Your task to perform on an android device: Open the stopwatch Image 0: 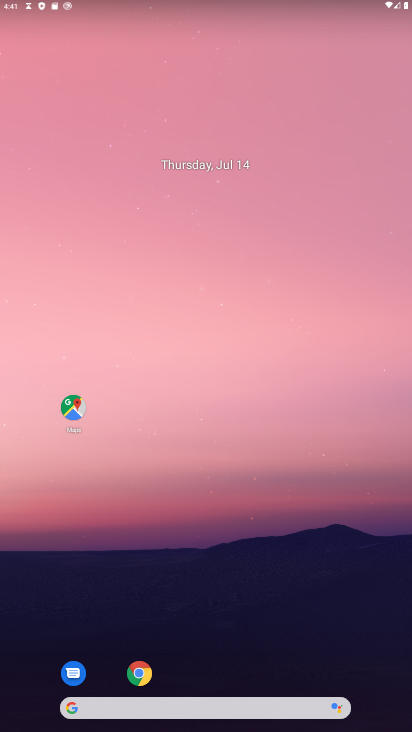
Step 0: press back button
Your task to perform on an android device: Open the stopwatch Image 1: 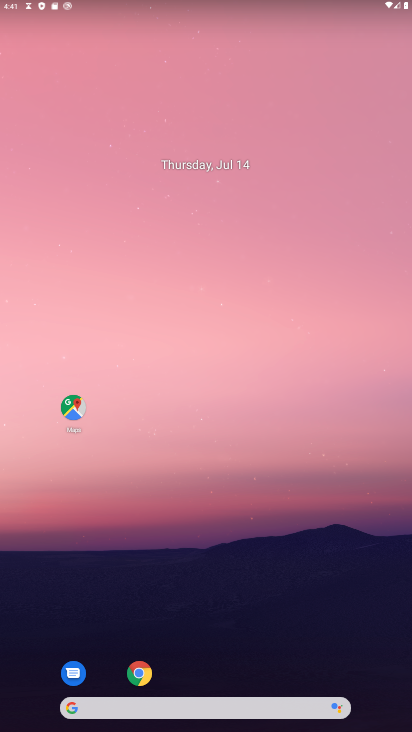
Step 1: drag from (246, 704) to (167, 184)
Your task to perform on an android device: Open the stopwatch Image 2: 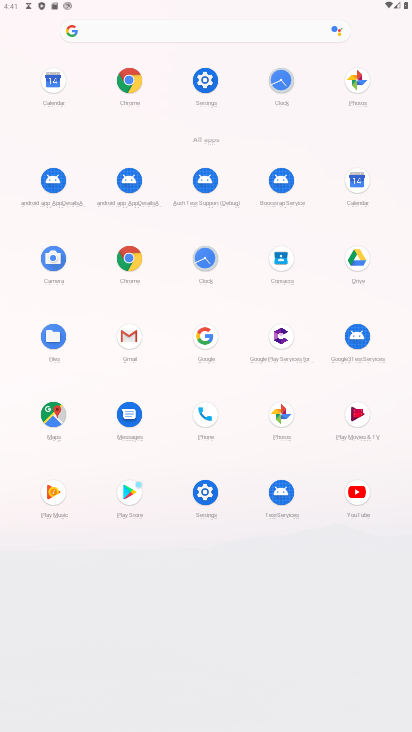
Step 2: click (204, 254)
Your task to perform on an android device: Open the stopwatch Image 3: 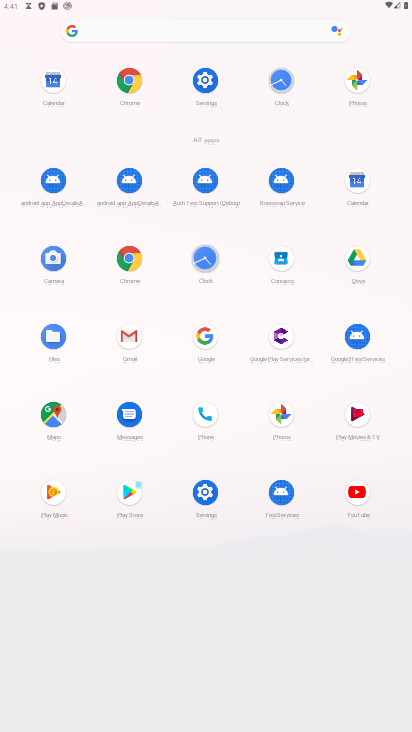
Step 3: click (205, 254)
Your task to perform on an android device: Open the stopwatch Image 4: 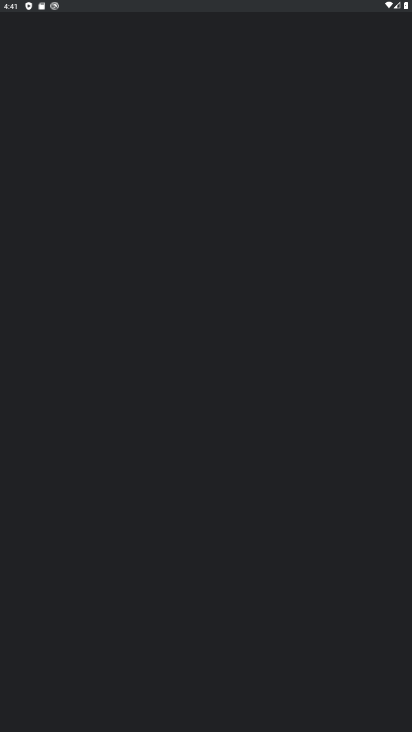
Step 4: click (207, 255)
Your task to perform on an android device: Open the stopwatch Image 5: 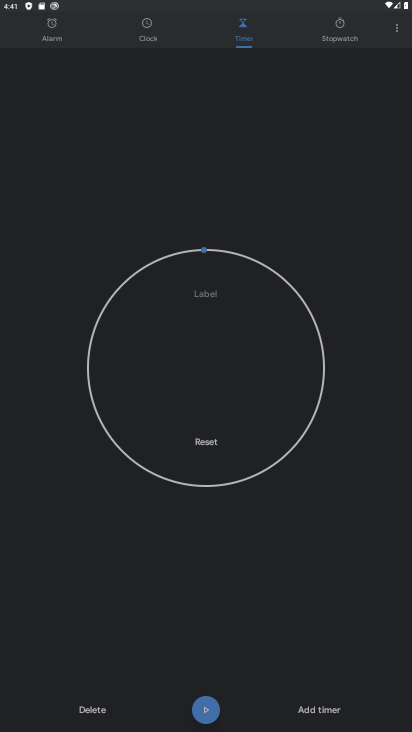
Step 5: click (207, 255)
Your task to perform on an android device: Open the stopwatch Image 6: 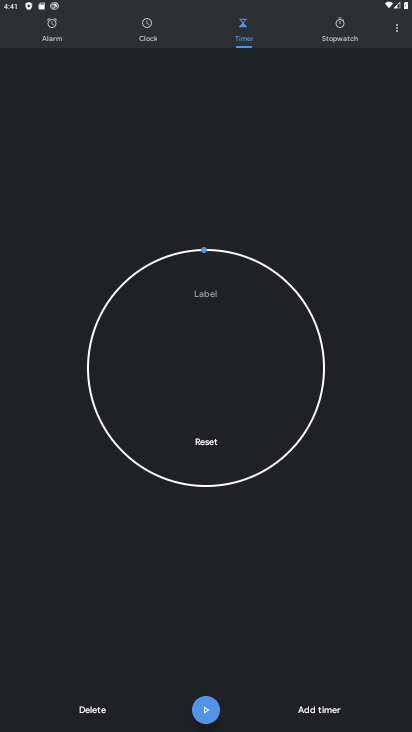
Step 6: click (338, 30)
Your task to perform on an android device: Open the stopwatch Image 7: 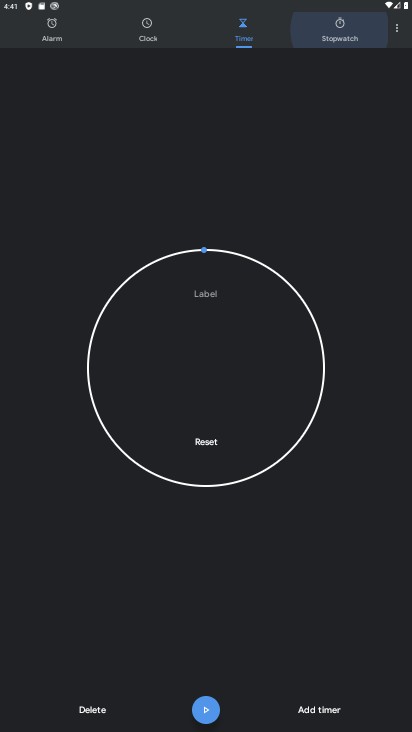
Step 7: click (338, 29)
Your task to perform on an android device: Open the stopwatch Image 8: 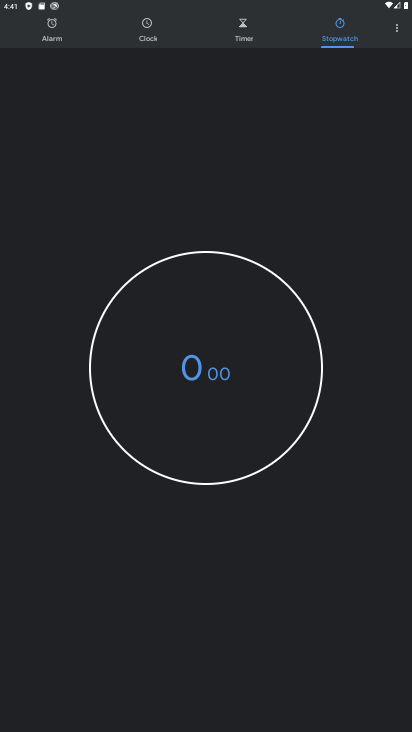
Step 8: click (338, 29)
Your task to perform on an android device: Open the stopwatch Image 9: 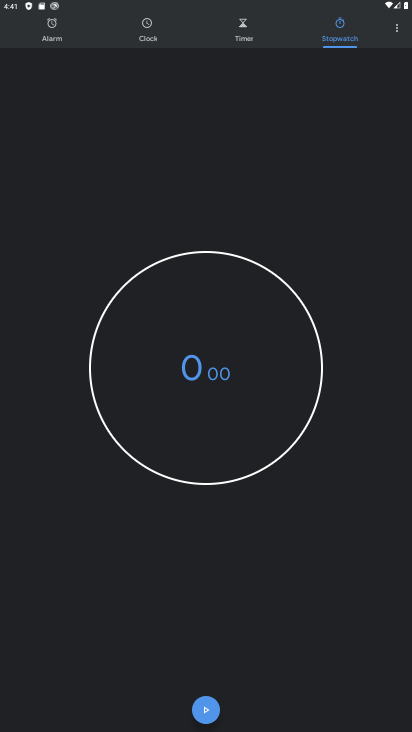
Step 9: click (216, 706)
Your task to perform on an android device: Open the stopwatch Image 10: 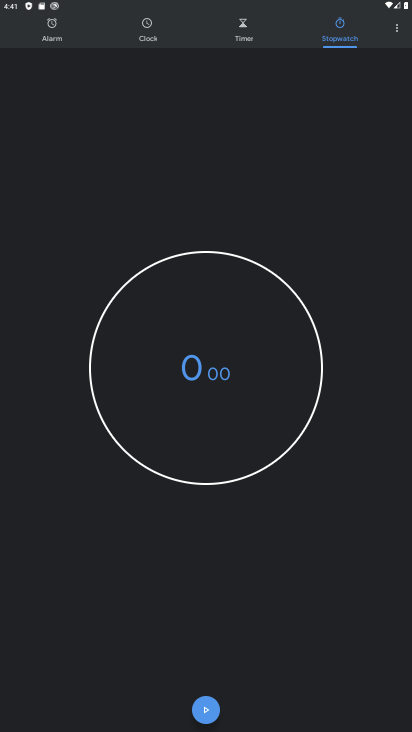
Step 10: click (216, 706)
Your task to perform on an android device: Open the stopwatch Image 11: 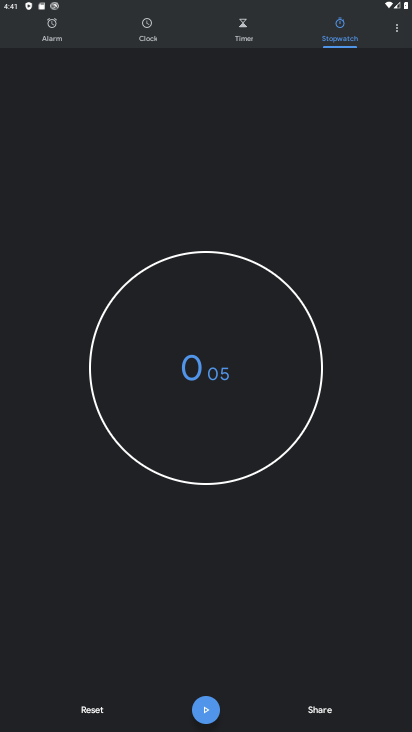
Step 11: click (208, 709)
Your task to perform on an android device: Open the stopwatch Image 12: 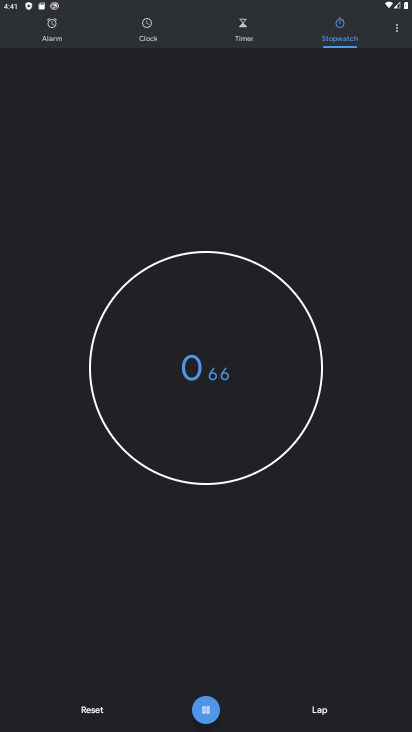
Step 12: click (208, 709)
Your task to perform on an android device: Open the stopwatch Image 13: 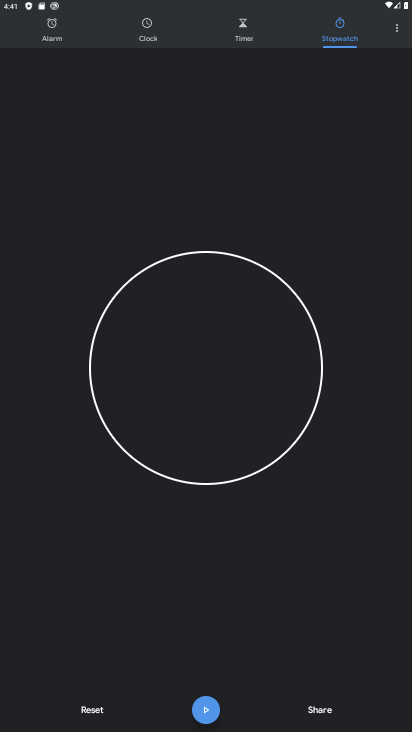
Step 13: click (212, 714)
Your task to perform on an android device: Open the stopwatch Image 14: 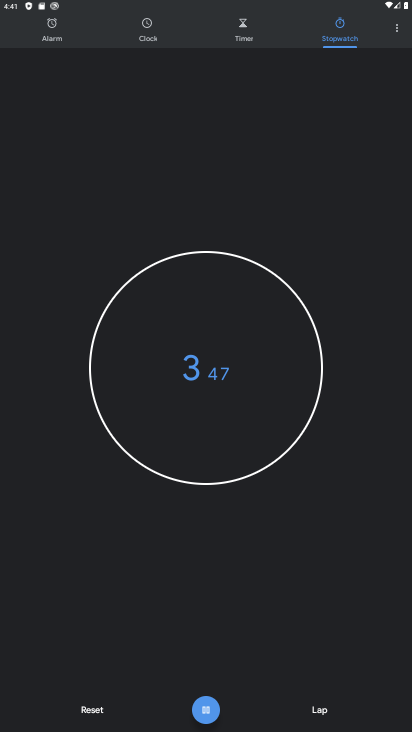
Step 14: click (212, 714)
Your task to perform on an android device: Open the stopwatch Image 15: 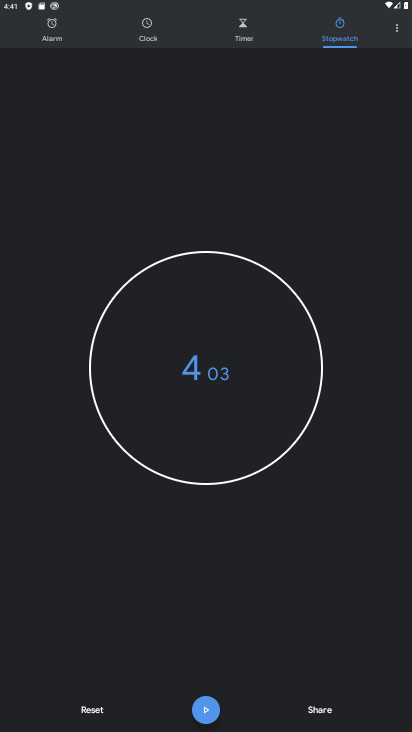
Step 15: task complete